Your task to perform on an android device: toggle wifi Image 0: 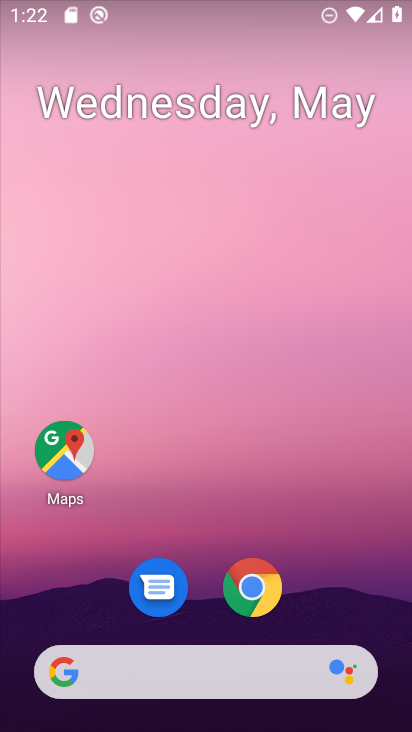
Step 0: drag from (347, 488) to (356, 249)
Your task to perform on an android device: toggle wifi Image 1: 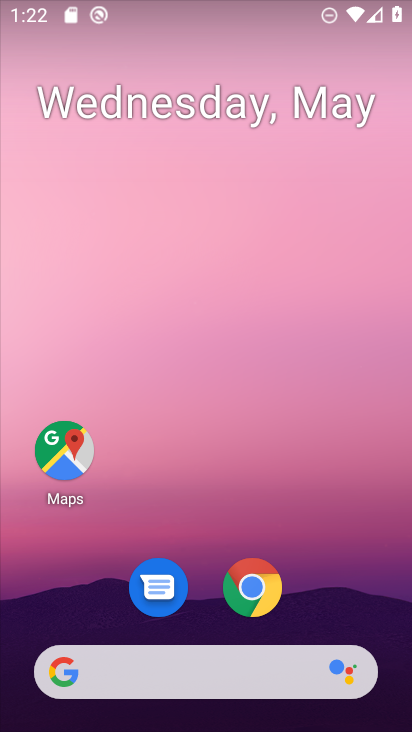
Step 1: drag from (329, 625) to (299, 44)
Your task to perform on an android device: toggle wifi Image 2: 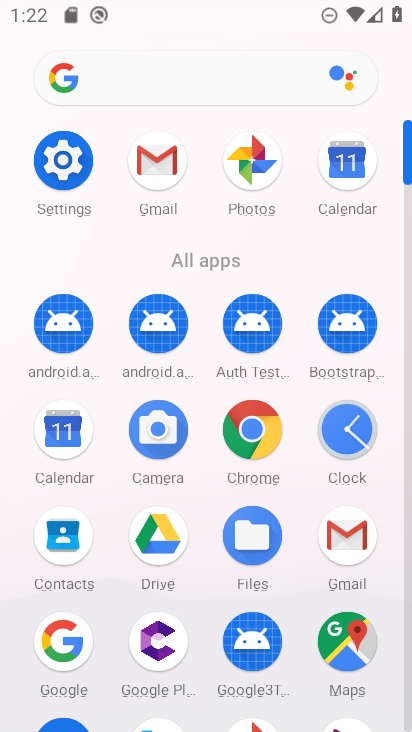
Step 2: click (62, 164)
Your task to perform on an android device: toggle wifi Image 3: 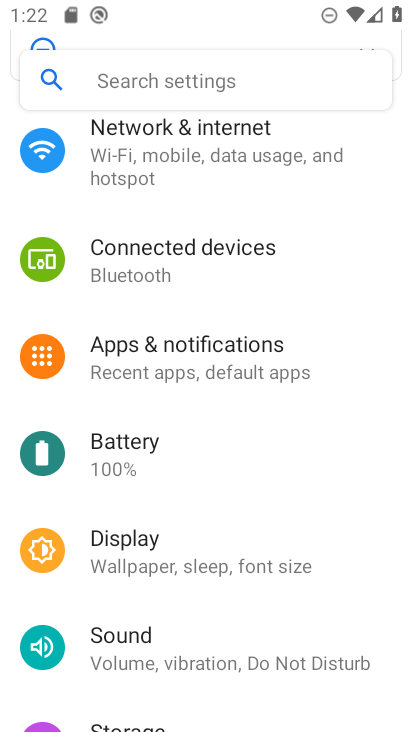
Step 3: click (186, 171)
Your task to perform on an android device: toggle wifi Image 4: 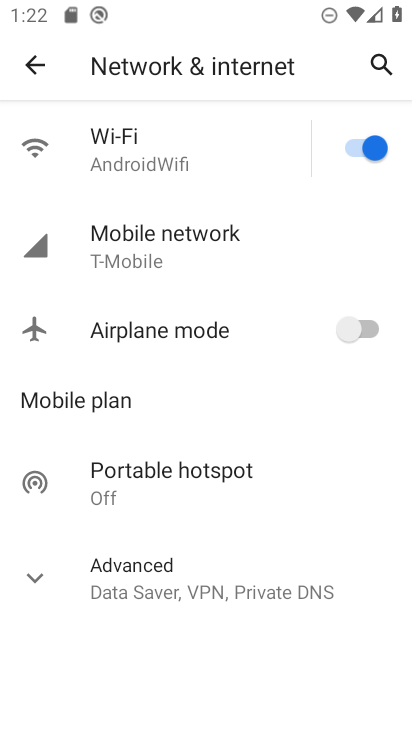
Step 4: click (350, 156)
Your task to perform on an android device: toggle wifi Image 5: 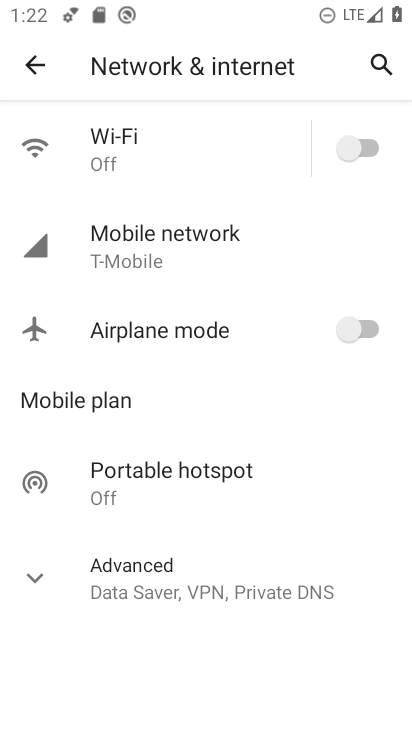
Step 5: task complete